Your task to perform on an android device: Open the web browser Image 0: 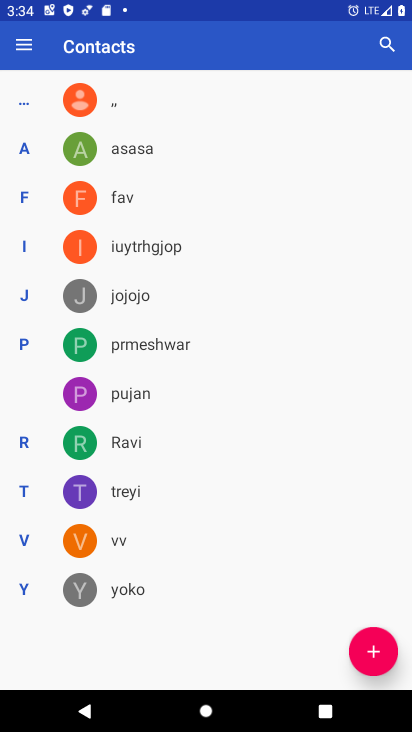
Step 0: press back button
Your task to perform on an android device: Open the web browser Image 1: 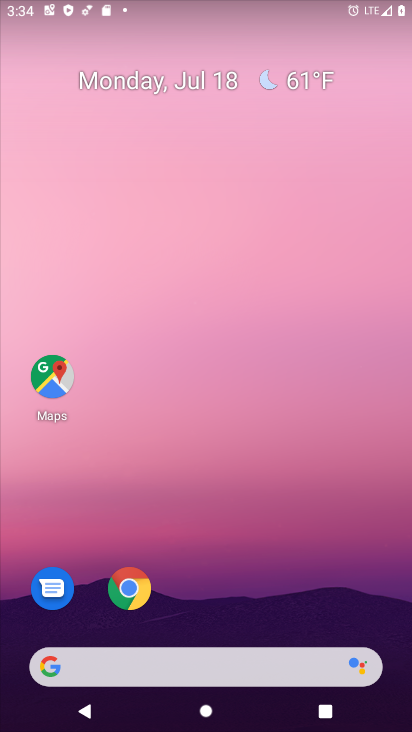
Step 1: click (129, 592)
Your task to perform on an android device: Open the web browser Image 2: 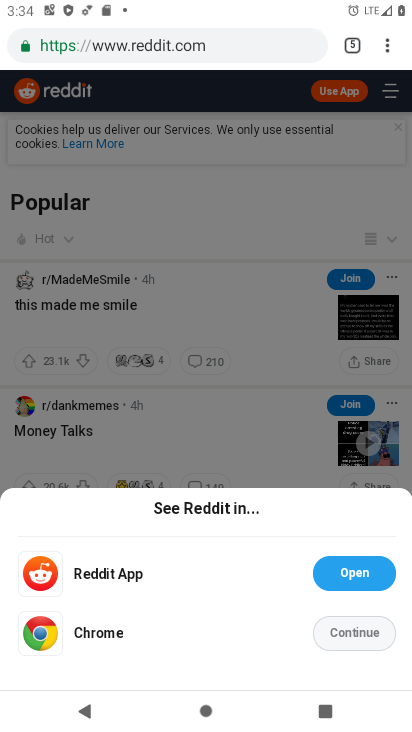
Step 2: task complete